Your task to perform on an android device: Go to location settings Image 0: 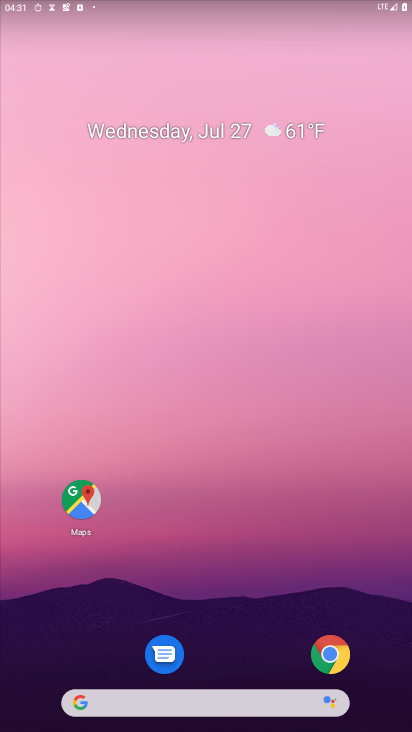
Step 0: drag from (221, 706) to (405, 258)
Your task to perform on an android device: Go to location settings Image 1: 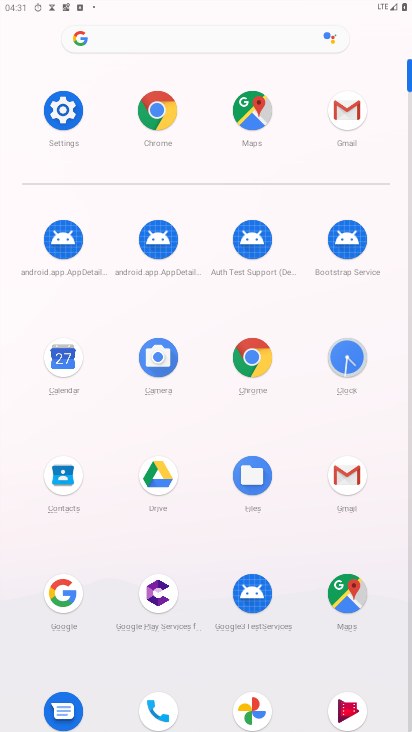
Step 1: click (72, 109)
Your task to perform on an android device: Go to location settings Image 2: 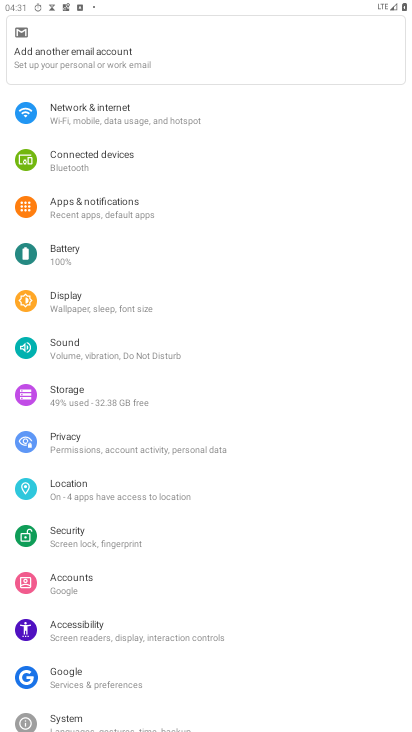
Step 2: click (88, 205)
Your task to perform on an android device: Go to location settings Image 3: 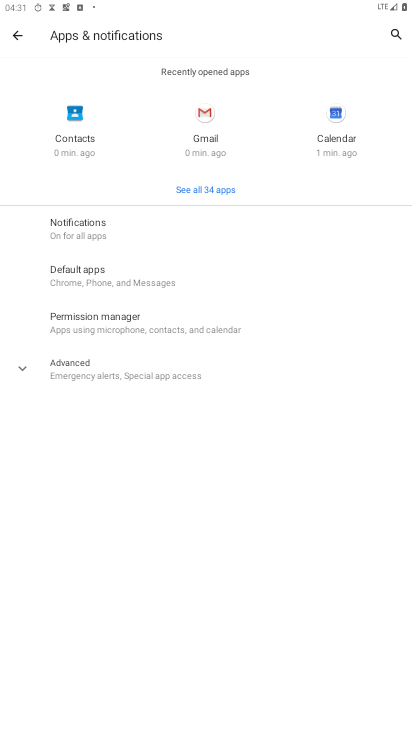
Step 3: press back button
Your task to perform on an android device: Go to location settings Image 4: 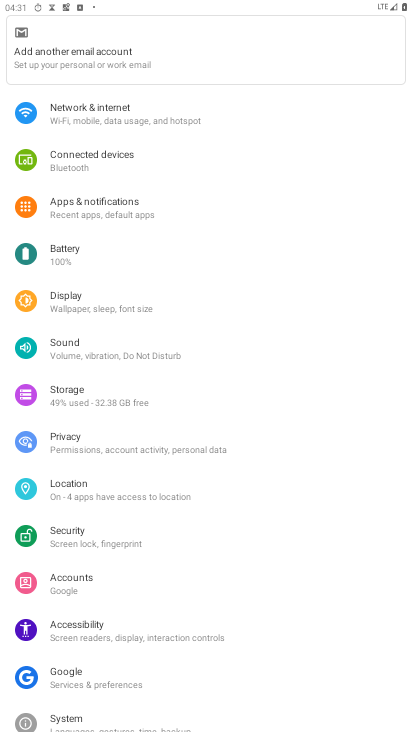
Step 4: click (81, 484)
Your task to perform on an android device: Go to location settings Image 5: 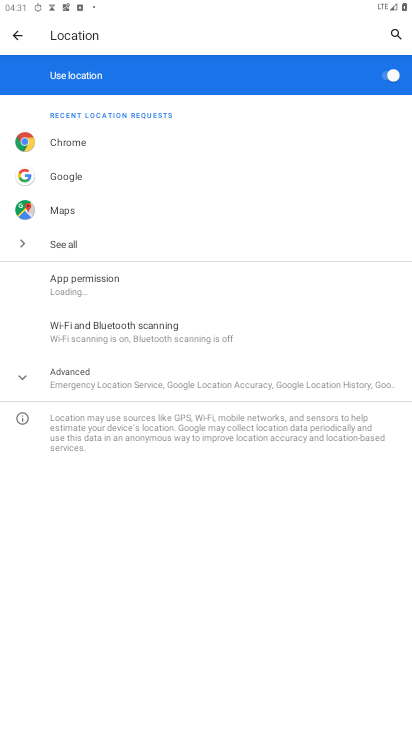
Step 5: task complete